Your task to perform on an android device: Open Yahoo.com Image 0: 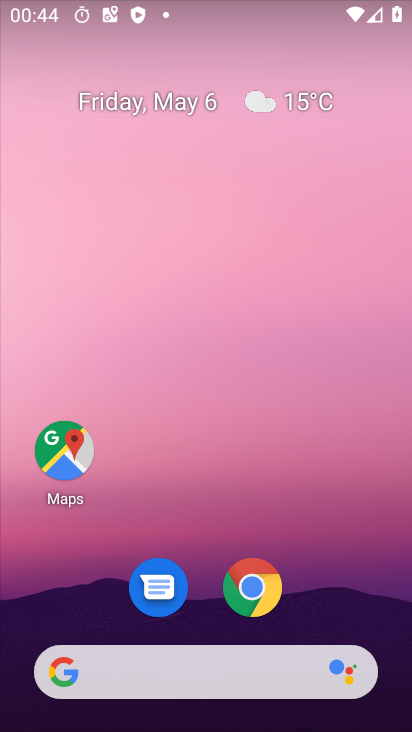
Step 0: click (250, 587)
Your task to perform on an android device: Open Yahoo.com Image 1: 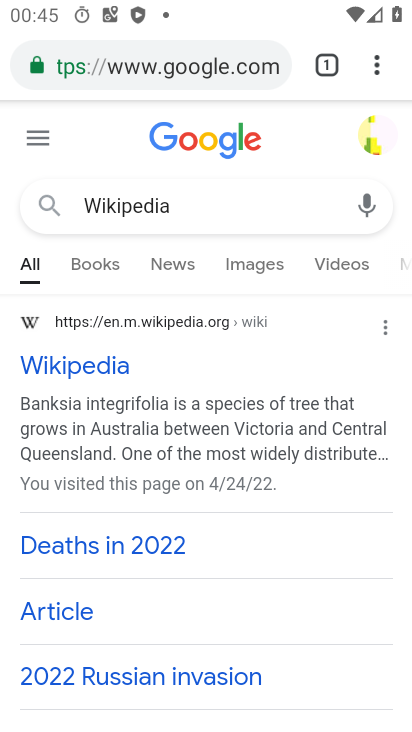
Step 1: click (280, 69)
Your task to perform on an android device: Open Yahoo.com Image 2: 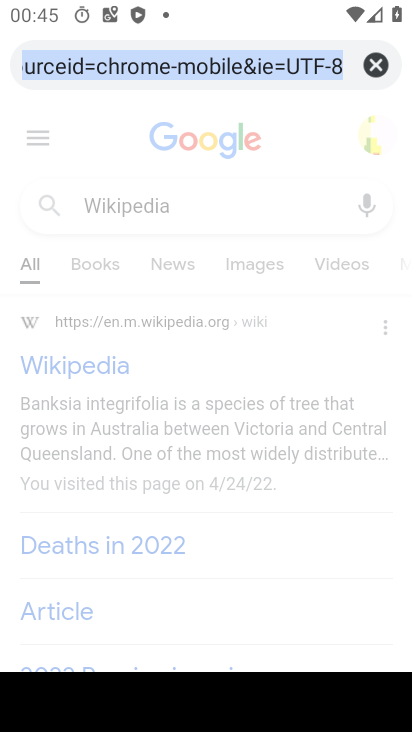
Step 2: click (368, 64)
Your task to perform on an android device: Open Yahoo.com Image 3: 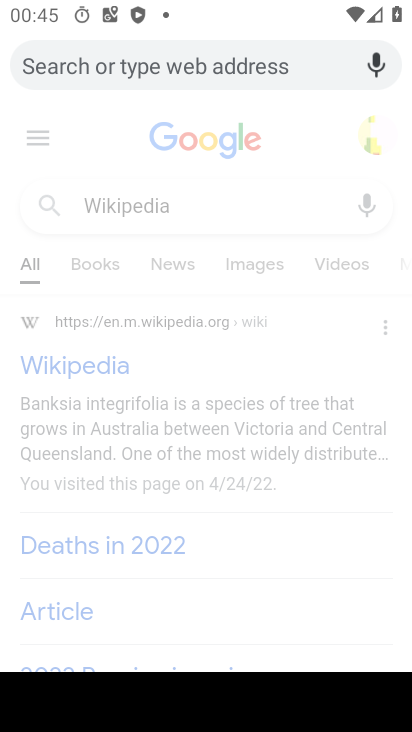
Step 3: type "Yahoo.com"
Your task to perform on an android device: Open Yahoo.com Image 4: 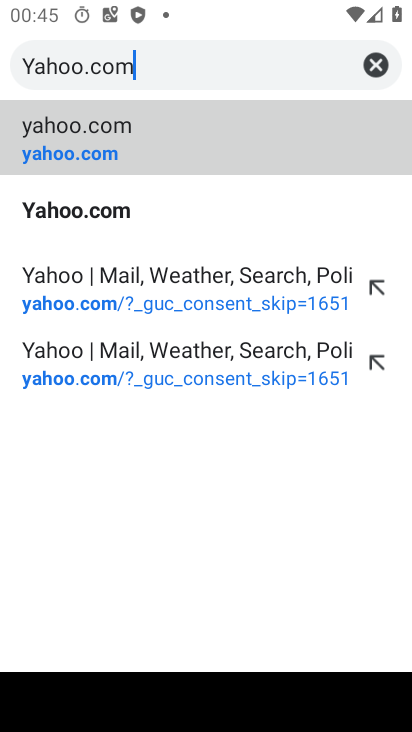
Step 4: click (154, 139)
Your task to perform on an android device: Open Yahoo.com Image 5: 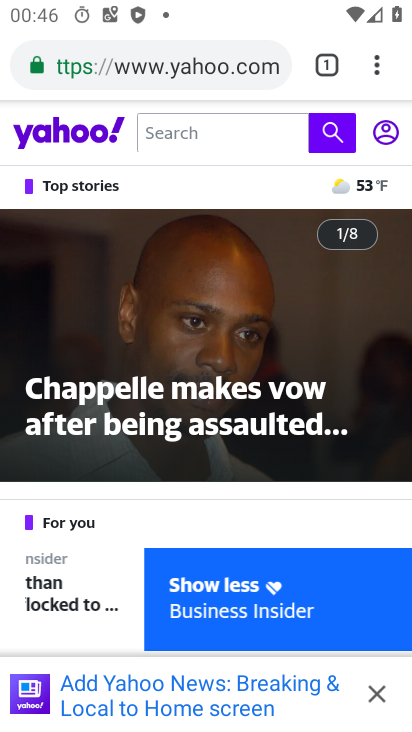
Step 5: task complete